Your task to perform on an android device: Open battery settings Image 0: 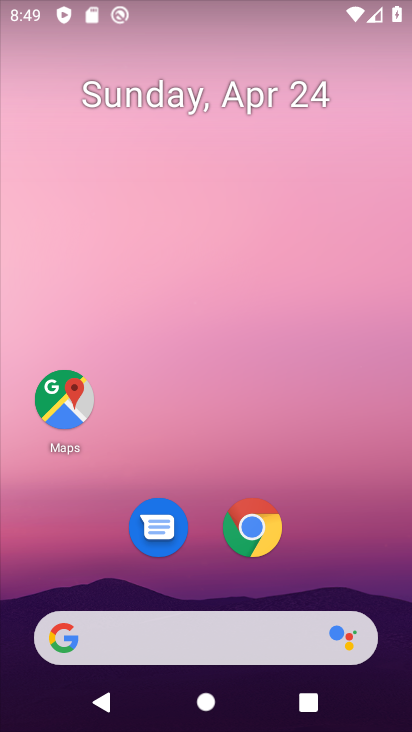
Step 0: drag from (382, 592) to (266, 110)
Your task to perform on an android device: Open battery settings Image 1: 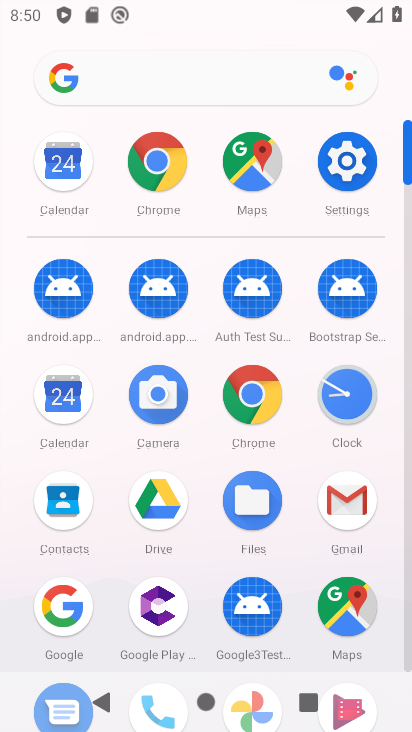
Step 1: click (352, 177)
Your task to perform on an android device: Open battery settings Image 2: 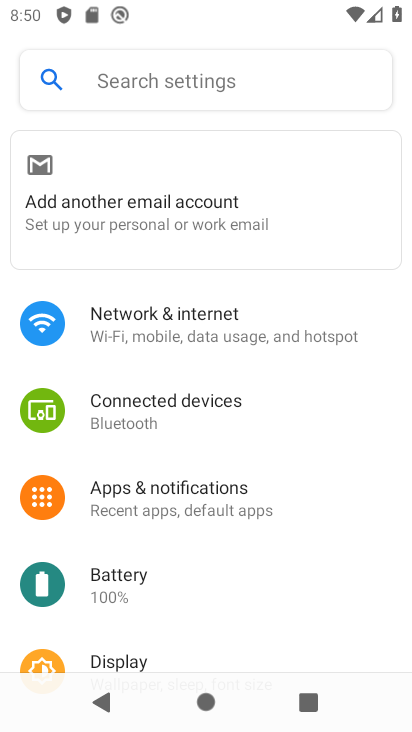
Step 2: click (131, 581)
Your task to perform on an android device: Open battery settings Image 3: 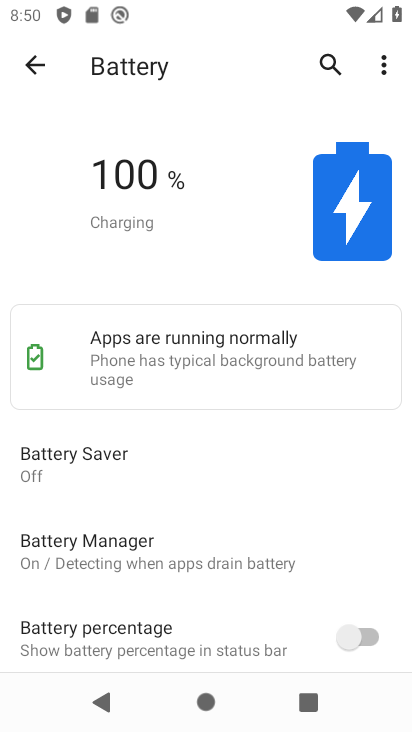
Step 3: task complete